Your task to perform on an android device: Open network settings Image 0: 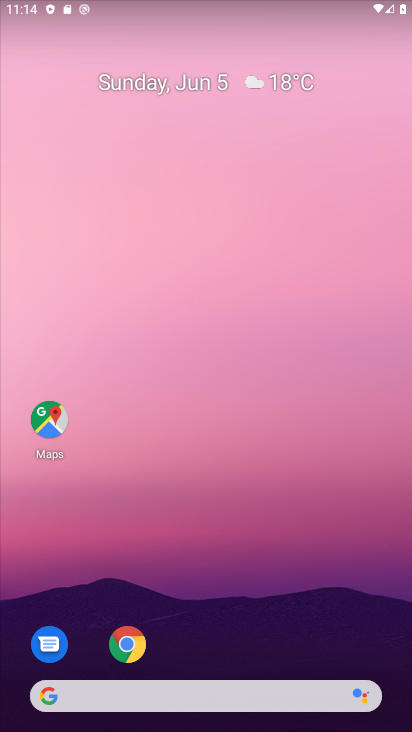
Step 0: drag from (260, 709) to (230, 217)
Your task to perform on an android device: Open network settings Image 1: 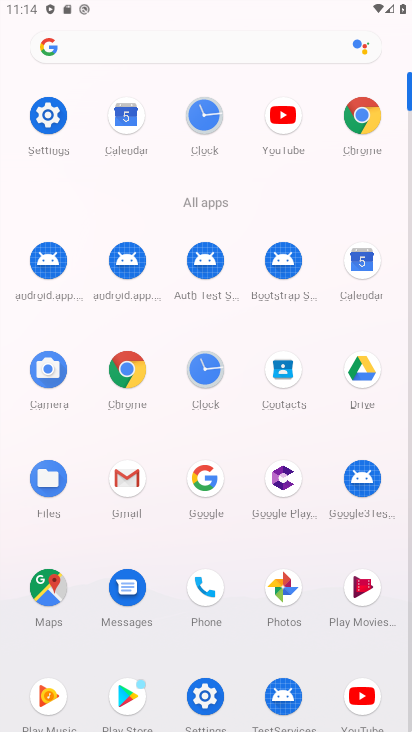
Step 1: click (208, 709)
Your task to perform on an android device: Open network settings Image 2: 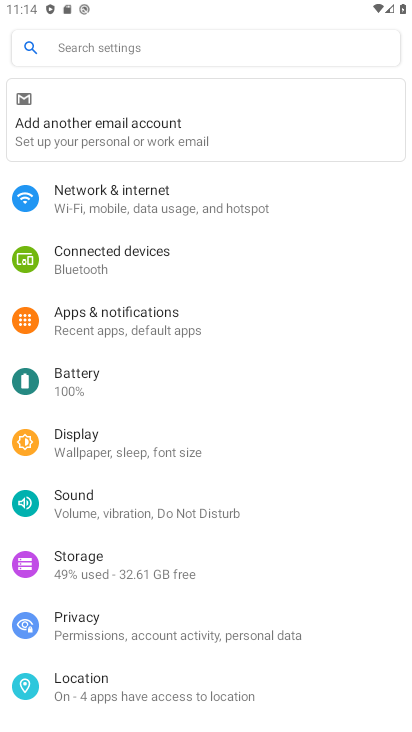
Step 2: click (120, 211)
Your task to perform on an android device: Open network settings Image 3: 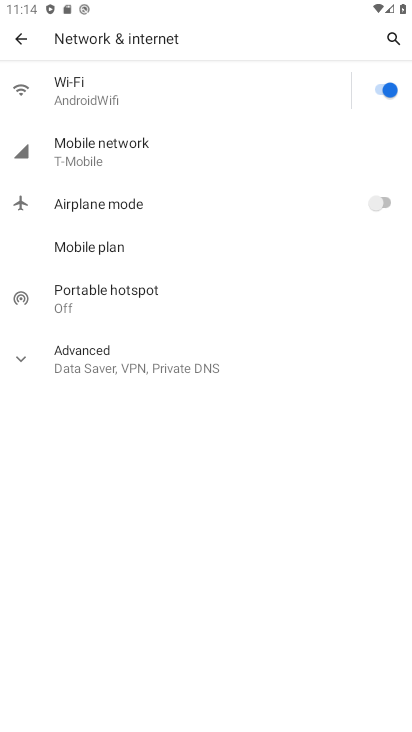
Step 3: task complete